Your task to perform on an android device: turn off priority inbox in the gmail app Image 0: 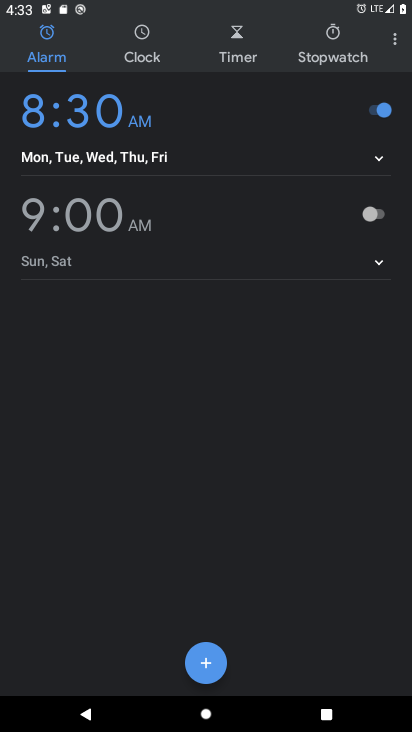
Step 0: press home button
Your task to perform on an android device: turn off priority inbox in the gmail app Image 1: 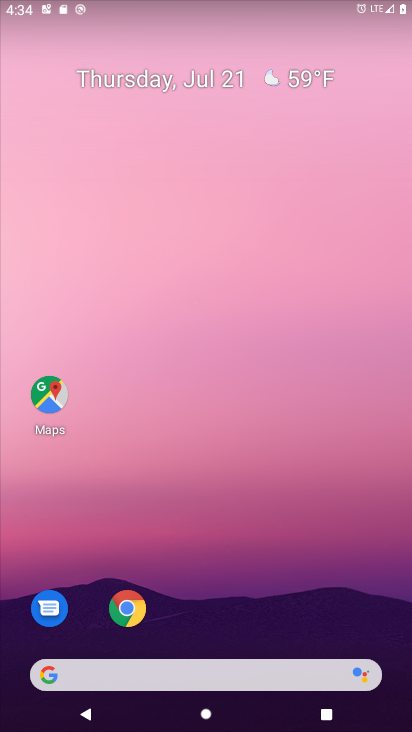
Step 1: drag from (205, 678) to (193, 88)
Your task to perform on an android device: turn off priority inbox in the gmail app Image 2: 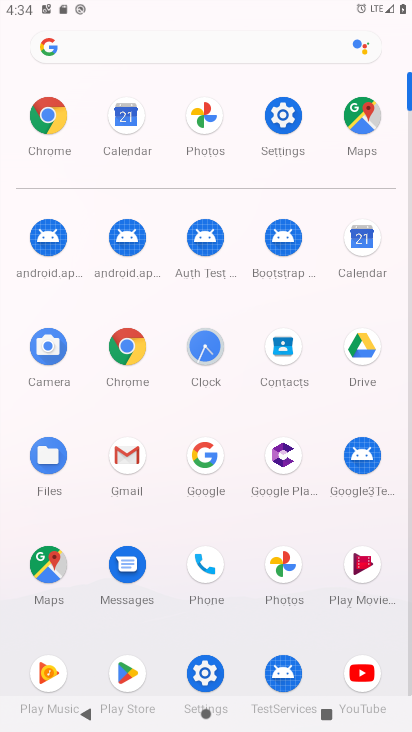
Step 2: click (134, 456)
Your task to perform on an android device: turn off priority inbox in the gmail app Image 3: 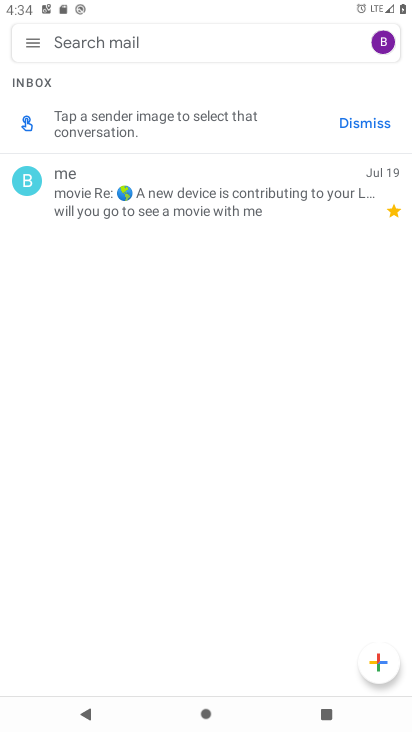
Step 3: click (24, 41)
Your task to perform on an android device: turn off priority inbox in the gmail app Image 4: 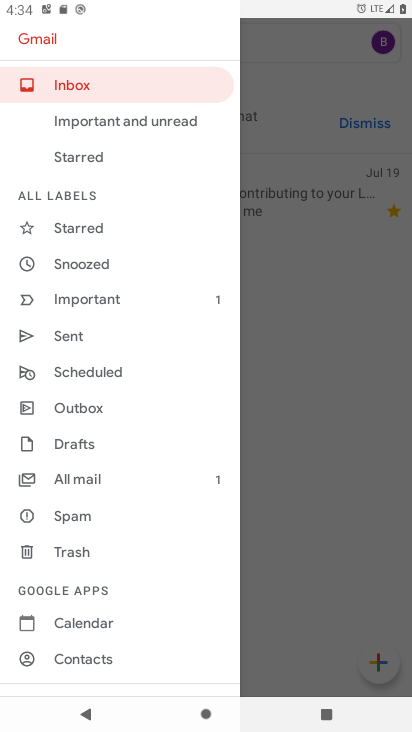
Step 4: drag from (104, 560) to (128, 246)
Your task to perform on an android device: turn off priority inbox in the gmail app Image 5: 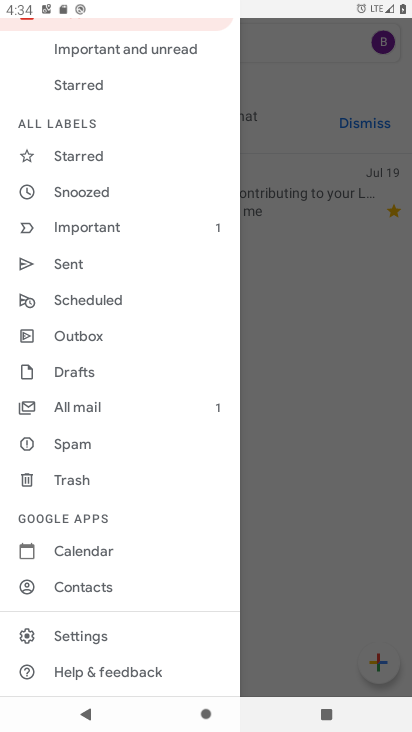
Step 5: click (90, 639)
Your task to perform on an android device: turn off priority inbox in the gmail app Image 6: 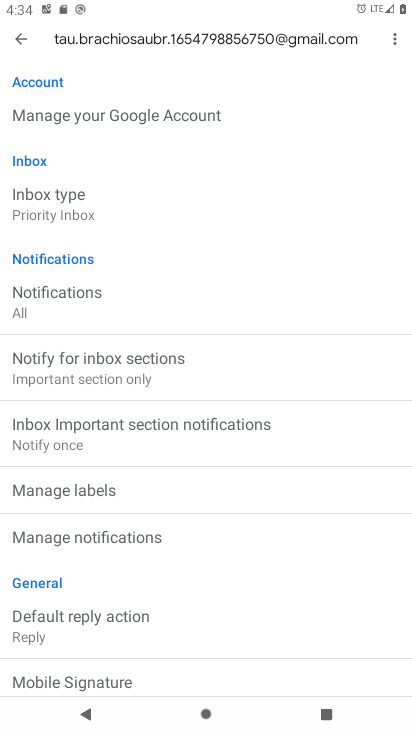
Step 6: click (68, 215)
Your task to perform on an android device: turn off priority inbox in the gmail app Image 7: 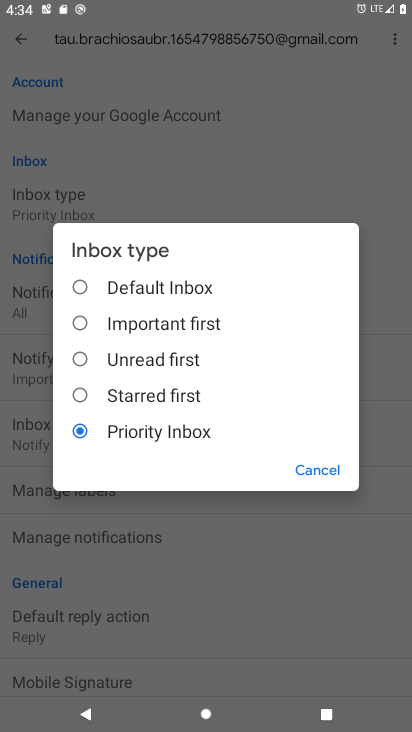
Step 7: click (76, 280)
Your task to perform on an android device: turn off priority inbox in the gmail app Image 8: 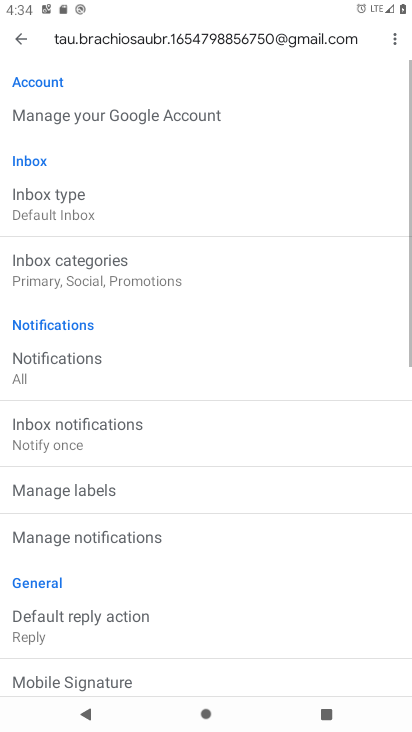
Step 8: task complete